Your task to perform on an android device: Go to Amazon Image 0: 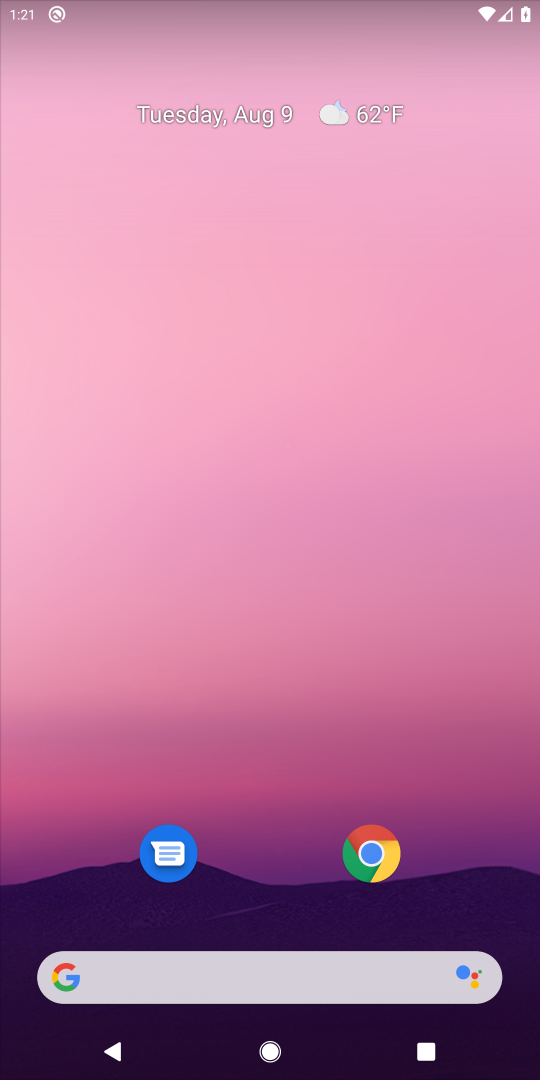
Step 0: press home button
Your task to perform on an android device: Go to Amazon Image 1: 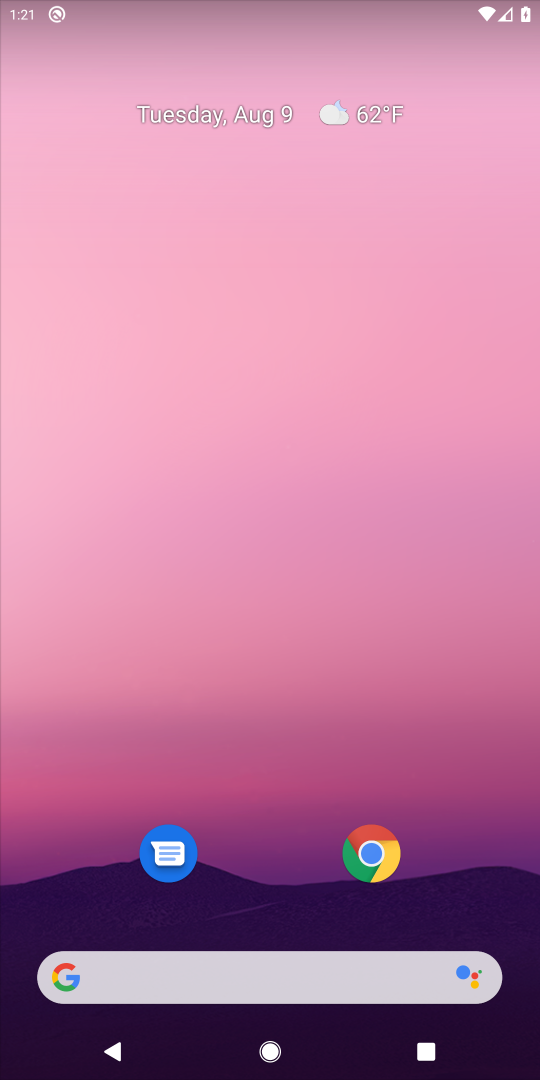
Step 1: click (59, 985)
Your task to perform on an android device: Go to Amazon Image 2: 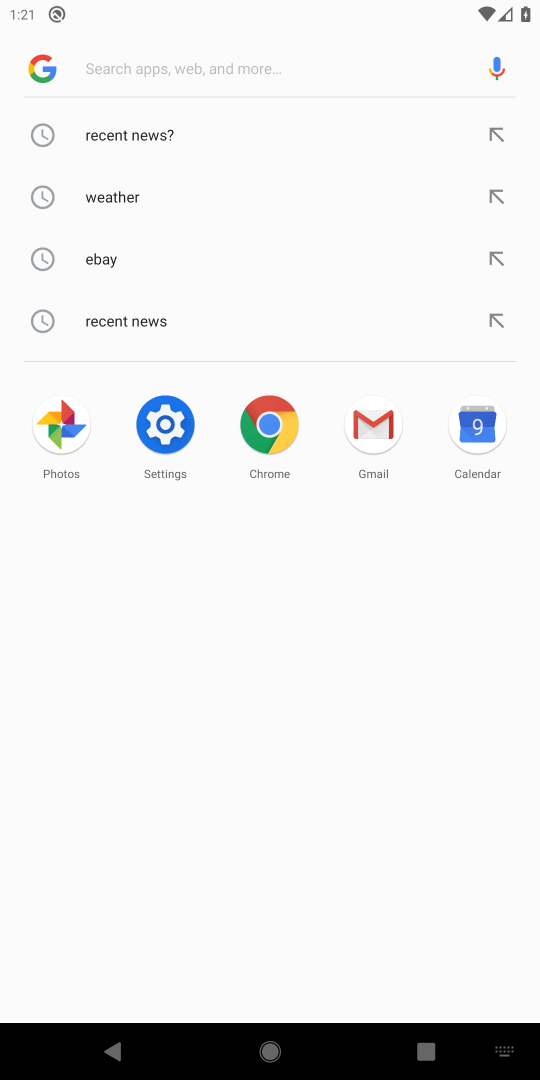
Step 2: type "Amazon"
Your task to perform on an android device: Go to Amazon Image 3: 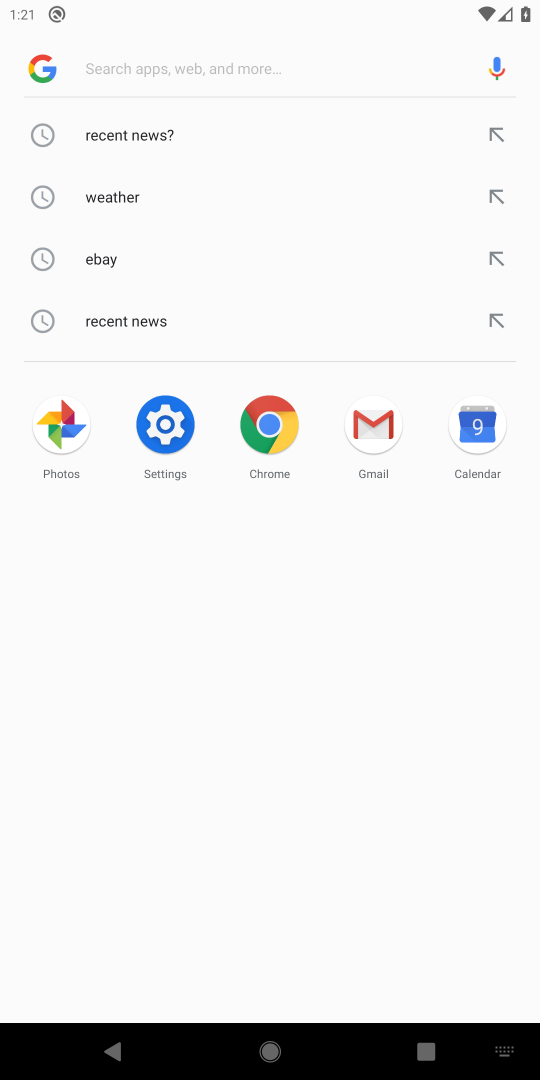
Step 3: click (127, 67)
Your task to perform on an android device: Go to Amazon Image 4: 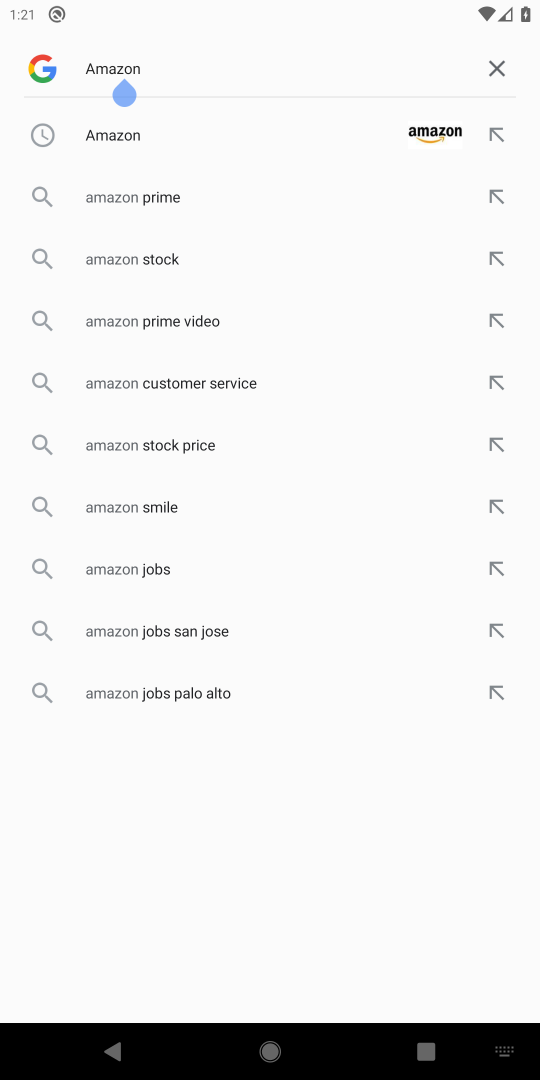
Step 4: click (397, 128)
Your task to perform on an android device: Go to Amazon Image 5: 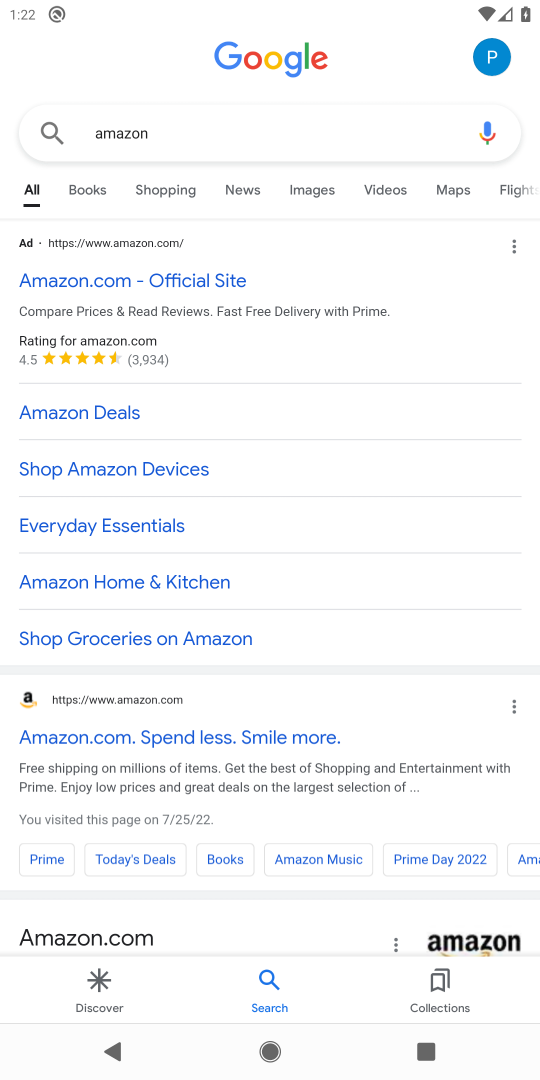
Step 5: click (123, 736)
Your task to perform on an android device: Go to Amazon Image 6: 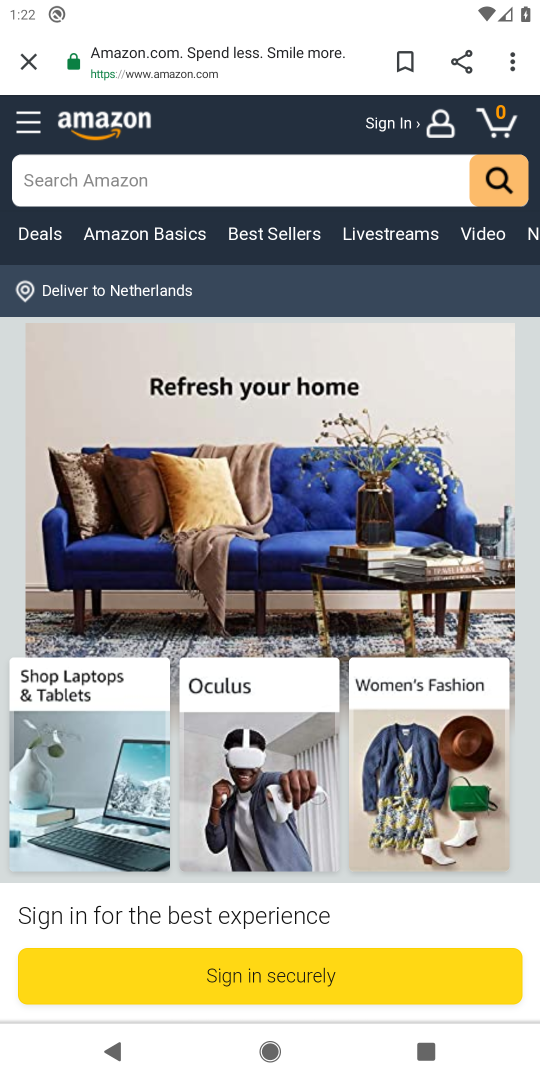
Step 6: task complete